Your task to perform on an android device: Go to accessibility settings Image 0: 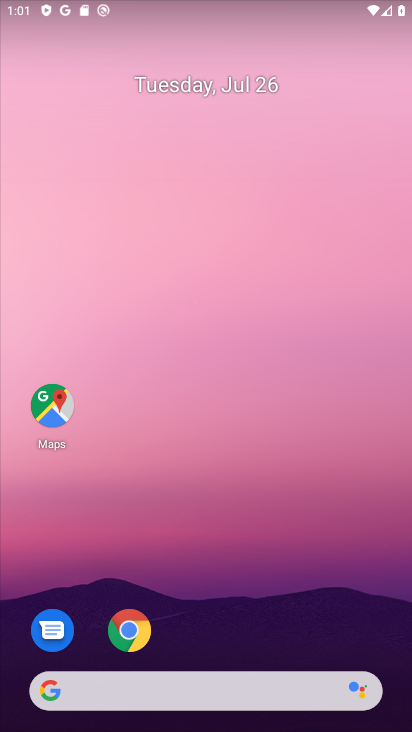
Step 0: drag from (223, 566) to (200, 44)
Your task to perform on an android device: Go to accessibility settings Image 1: 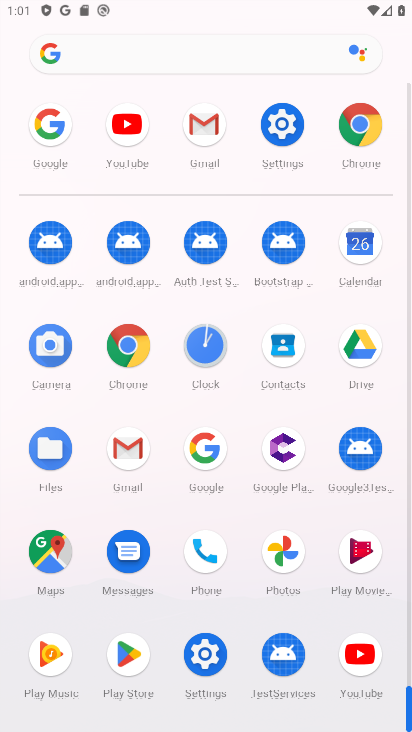
Step 1: click (297, 119)
Your task to perform on an android device: Go to accessibility settings Image 2: 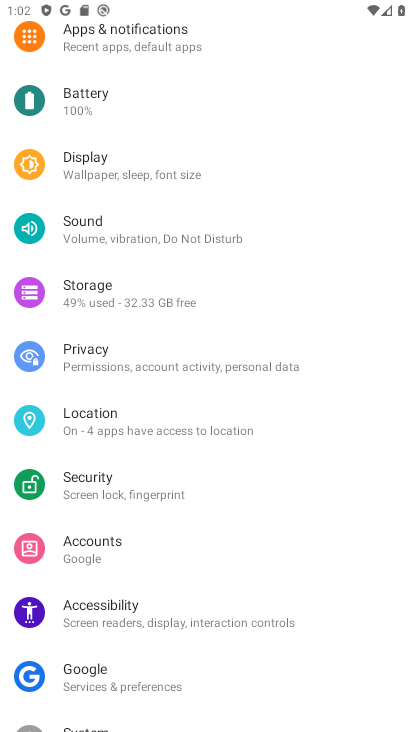
Step 2: click (148, 624)
Your task to perform on an android device: Go to accessibility settings Image 3: 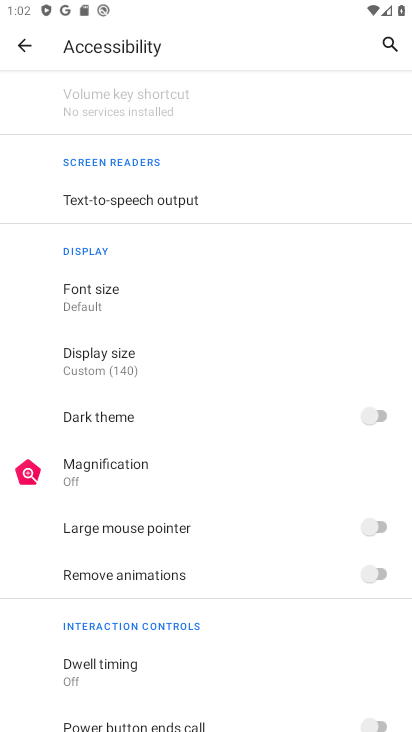
Step 3: task complete